Your task to perform on an android device: Open Google Maps and go to "Timeline" Image 0: 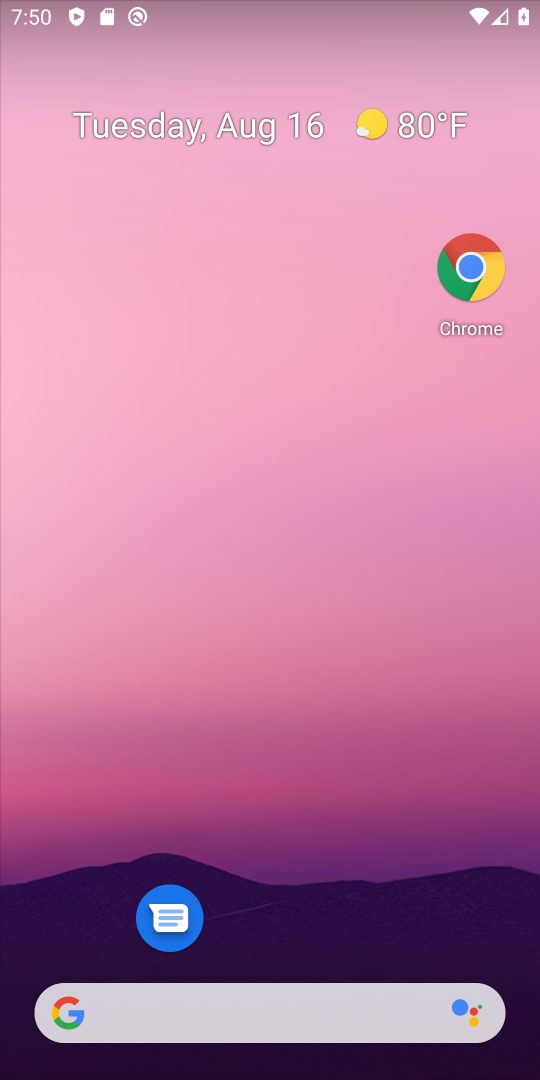
Step 0: drag from (221, 957) to (266, 165)
Your task to perform on an android device: Open Google Maps and go to "Timeline" Image 1: 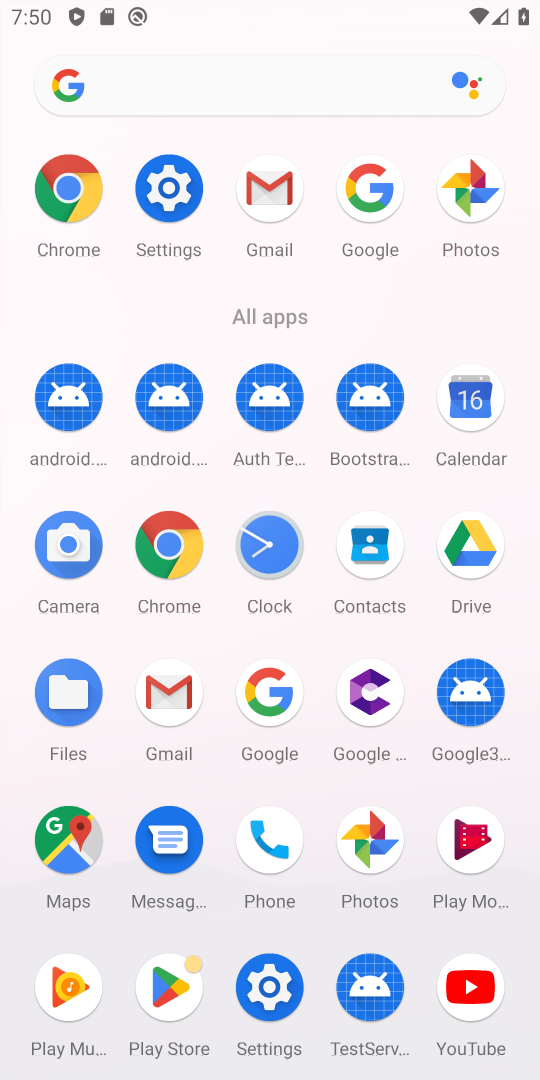
Step 1: click (70, 865)
Your task to perform on an android device: Open Google Maps and go to "Timeline" Image 2: 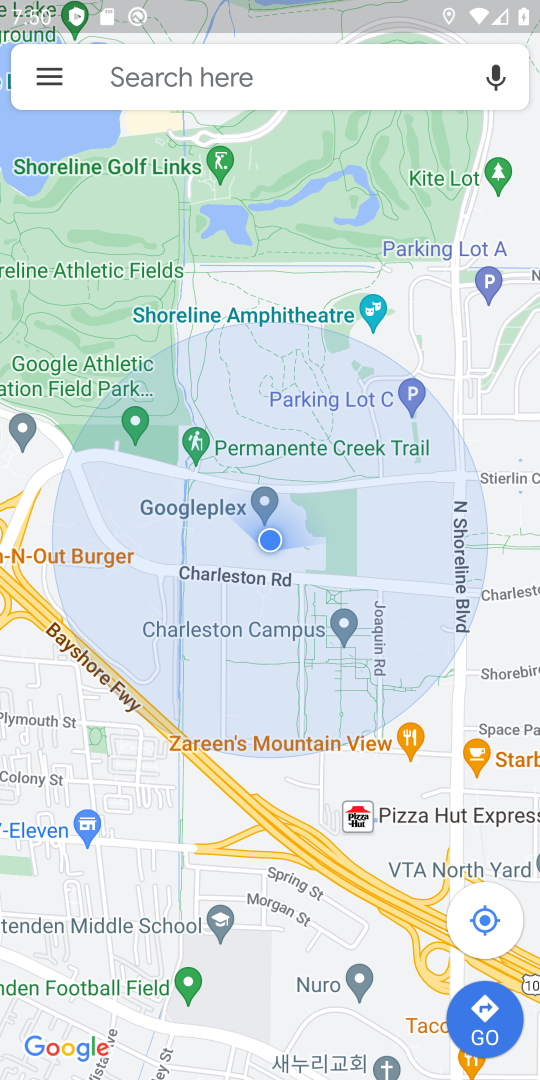
Step 2: click (57, 87)
Your task to perform on an android device: Open Google Maps and go to "Timeline" Image 3: 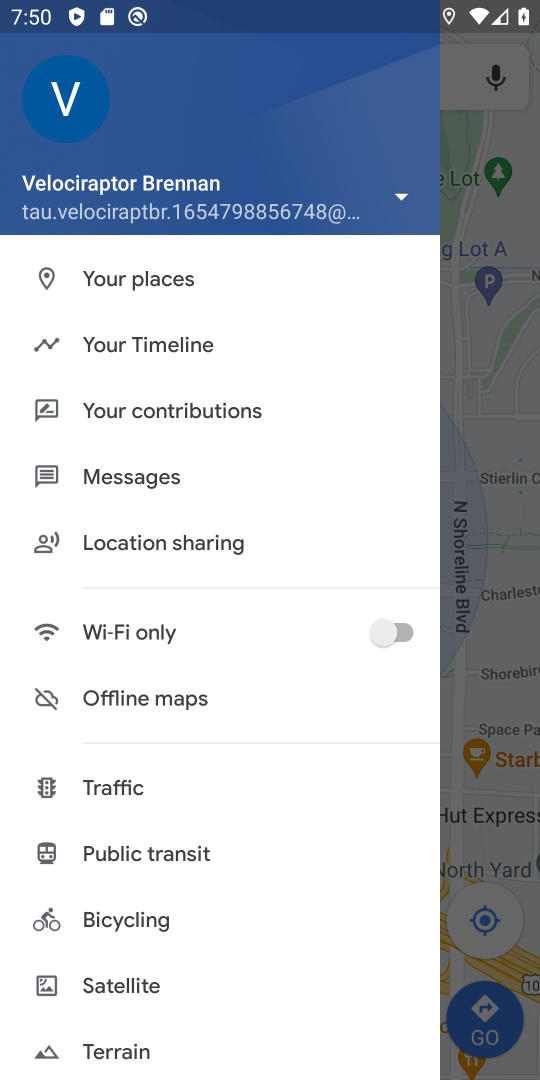
Step 3: click (177, 353)
Your task to perform on an android device: Open Google Maps and go to "Timeline" Image 4: 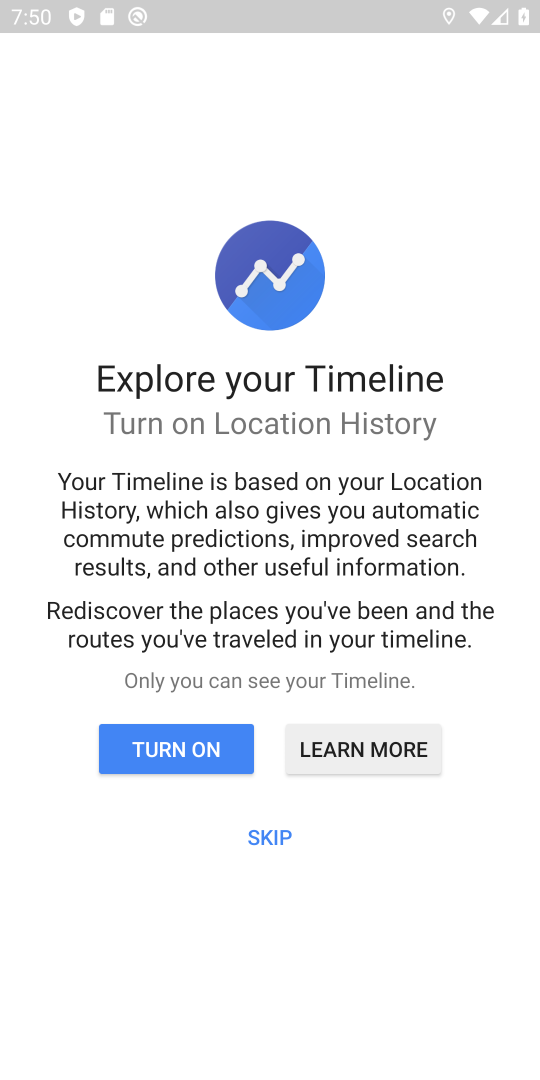
Step 4: click (273, 833)
Your task to perform on an android device: Open Google Maps and go to "Timeline" Image 5: 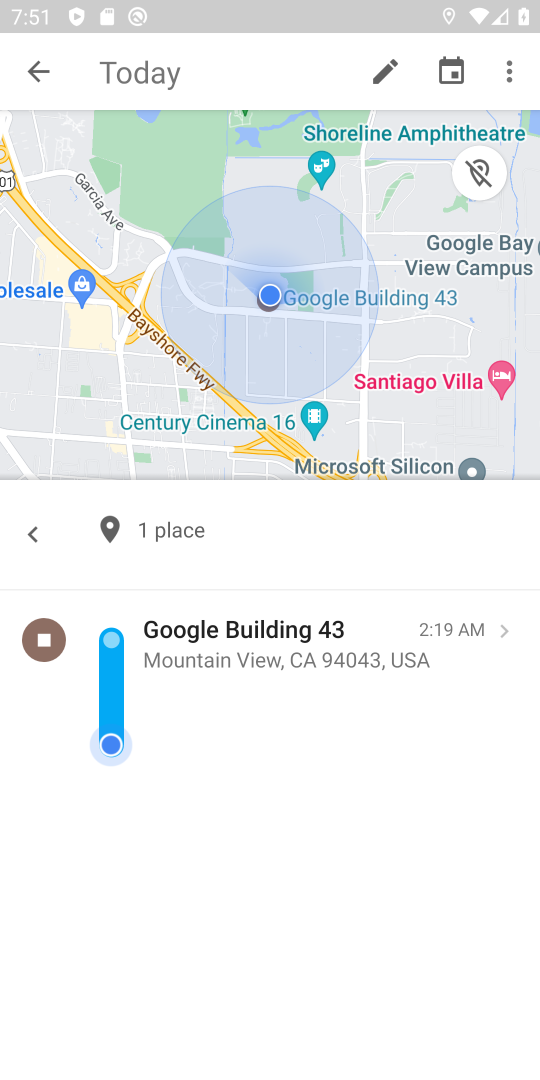
Step 5: task complete